Your task to perform on an android device: change the clock display to digital Image 0: 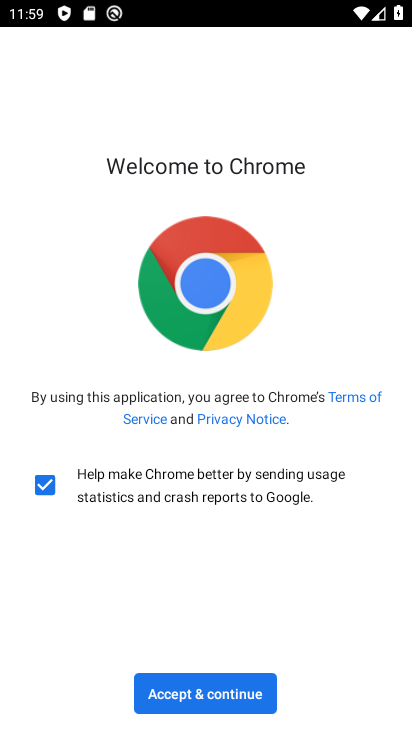
Step 0: press home button
Your task to perform on an android device: change the clock display to digital Image 1: 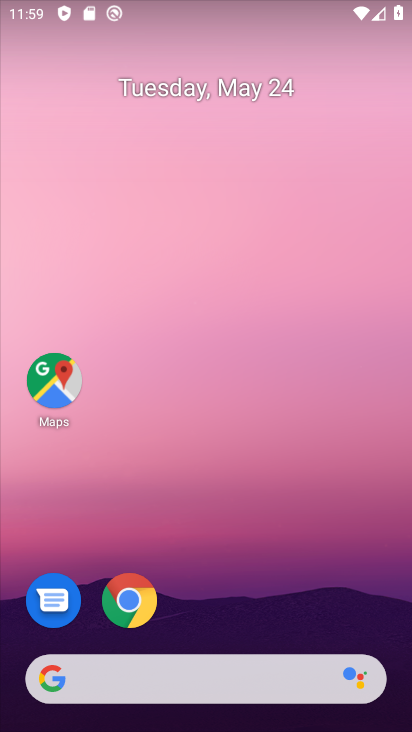
Step 1: drag from (242, 619) to (314, 5)
Your task to perform on an android device: change the clock display to digital Image 2: 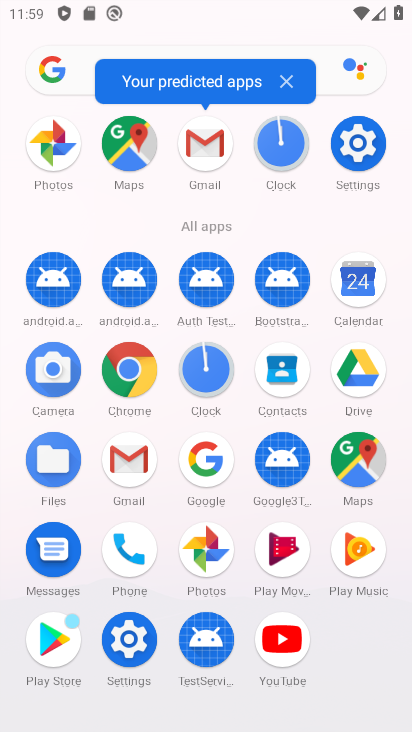
Step 2: click (201, 386)
Your task to perform on an android device: change the clock display to digital Image 3: 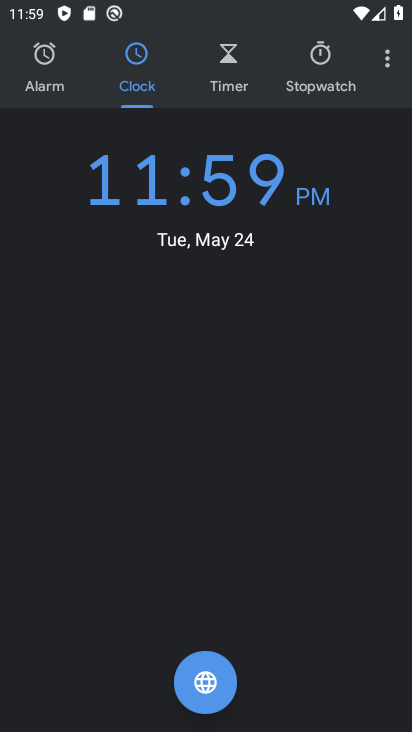
Step 3: click (379, 66)
Your task to perform on an android device: change the clock display to digital Image 4: 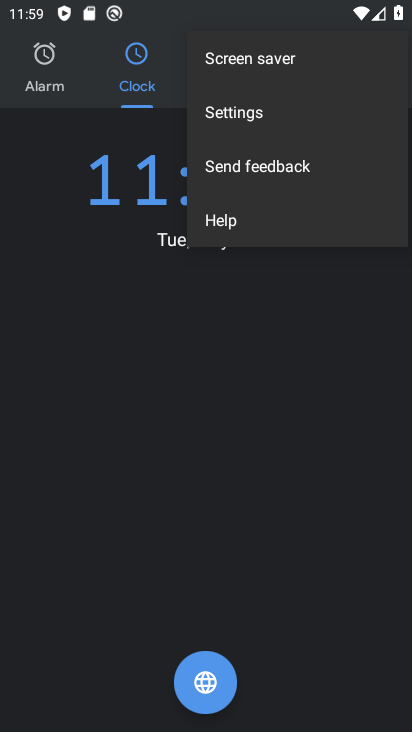
Step 4: click (272, 117)
Your task to perform on an android device: change the clock display to digital Image 5: 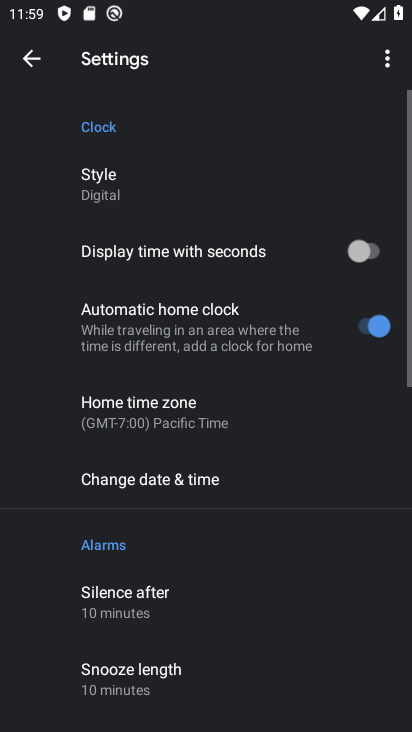
Step 5: click (122, 196)
Your task to perform on an android device: change the clock display to digital Image 6: 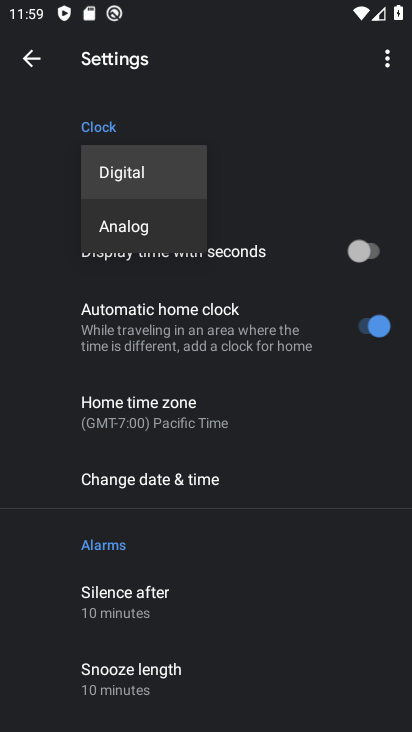
Step 6: click (169, 181)
Your task to perform on an android device: change the clock display to digital Image 7: 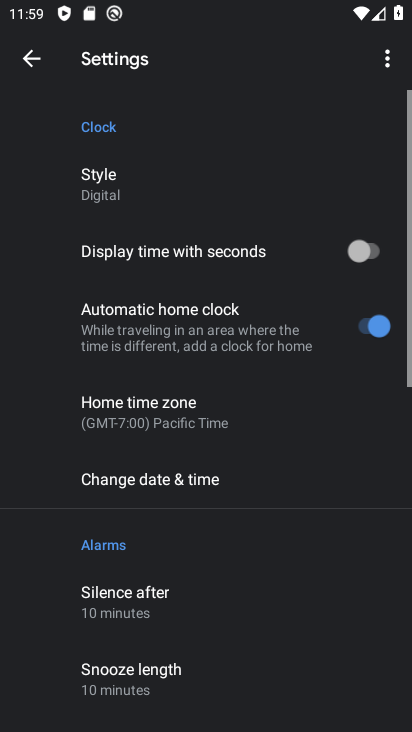
Step 7: task complete